Your task to perform on an android device: Search for the best rated mattress topper on Target. Image 0: 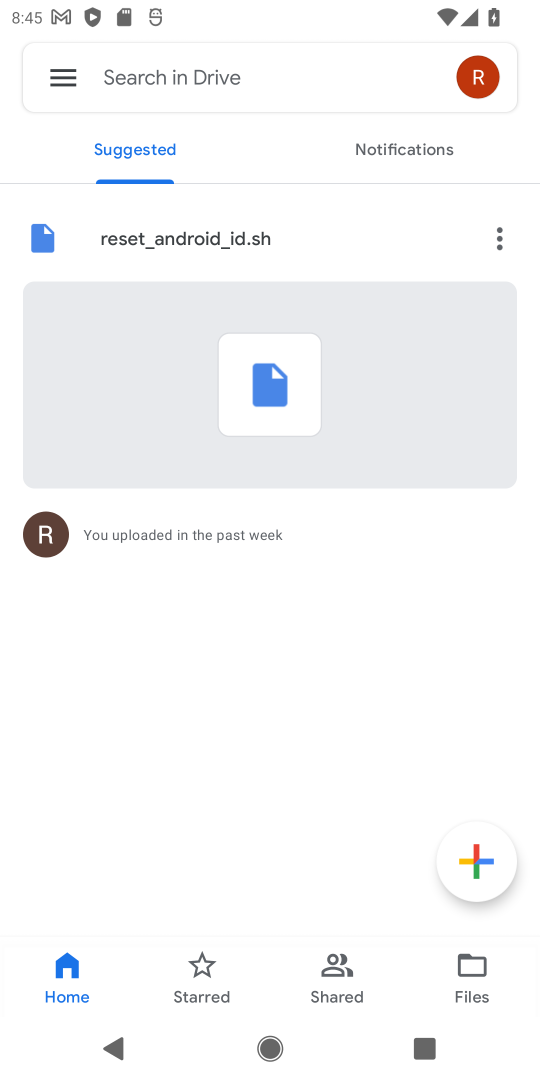
Step 0: press home button
Your task to perform on an android device: Search for the best rated mattress topper on Target. Image 1: 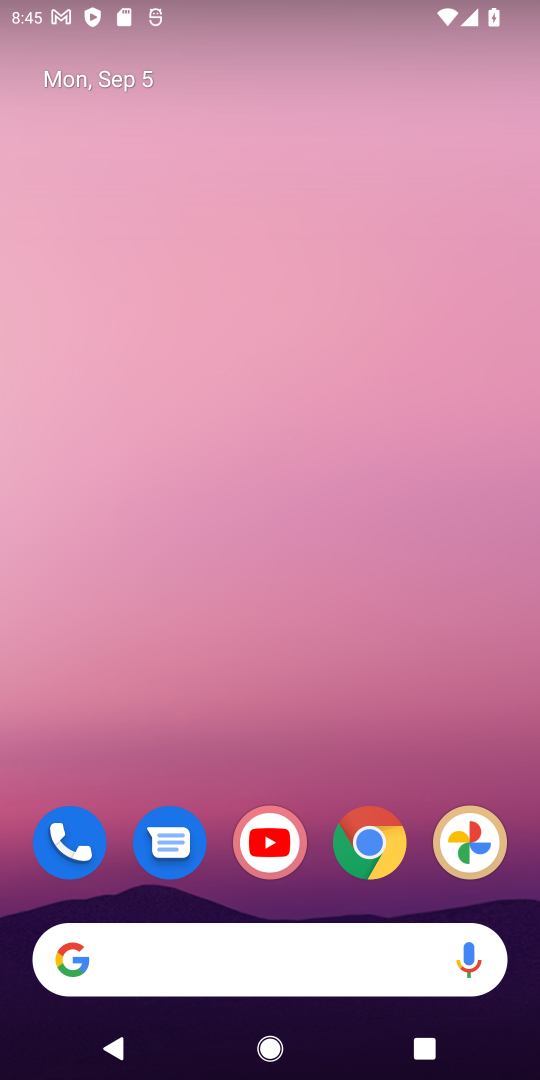
Step 1: drag from (216, 906) to (265, 232)
Your task to perform on an android device: Search for the best rated mattress topper on Target. Image 2: 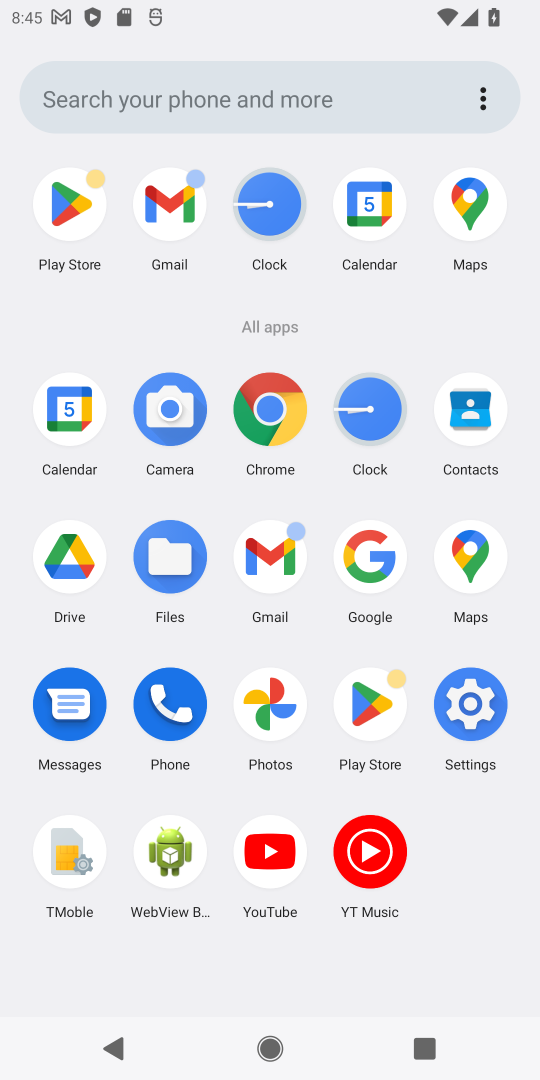
Step 2: click (284, 422)
Your task to perform on an android device: Search for the best rated mattress topper on Target. Image 3: 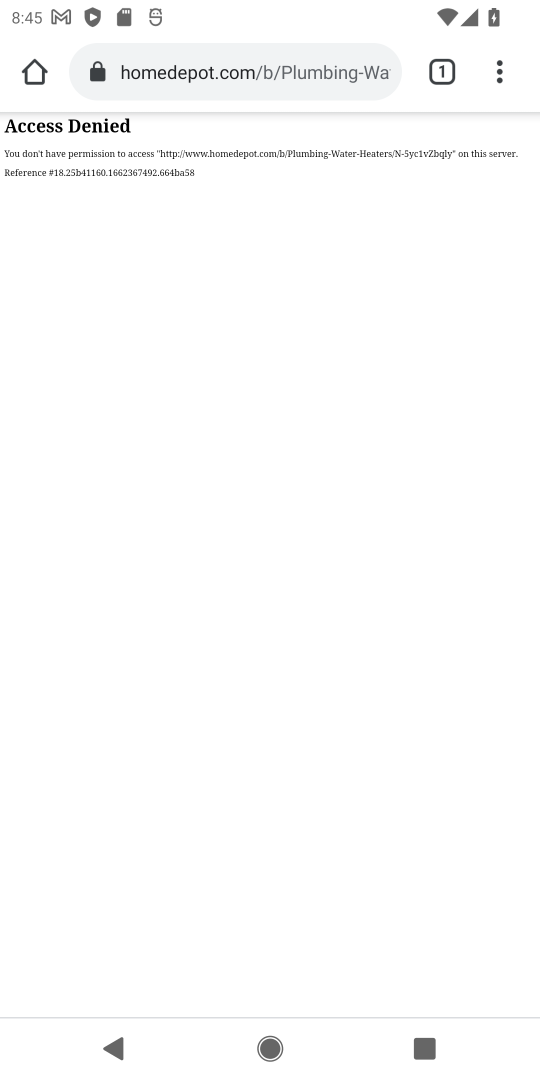
Step 3: click (296, 71)
Your task to perform on an android device: Search for the best rated mattress topper on Target. Image 4: 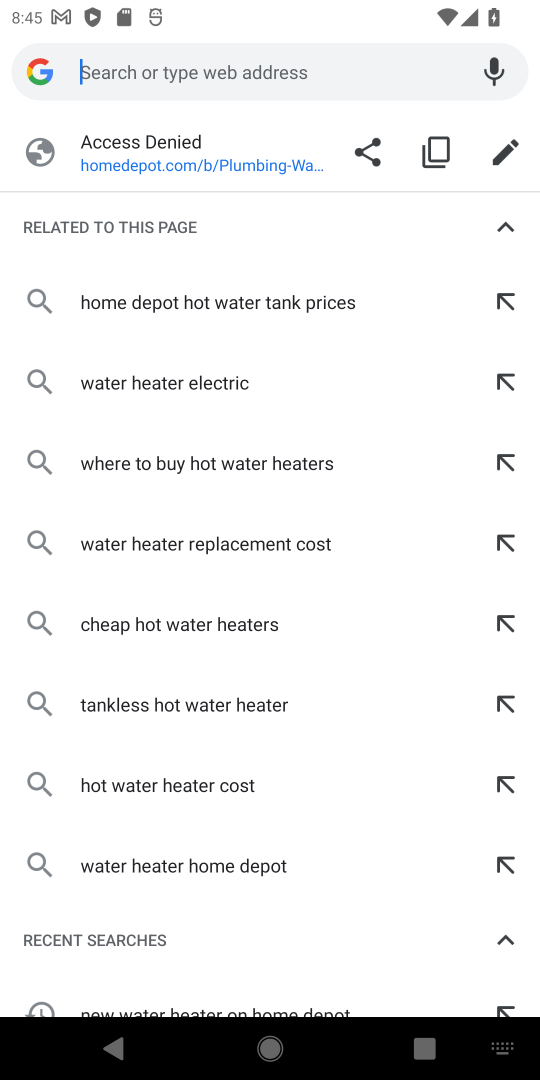
Step 4: type "best rated mattress topper"
Your task to perform on an android device: Search for the best rated mattress topper on Target. Image 5: 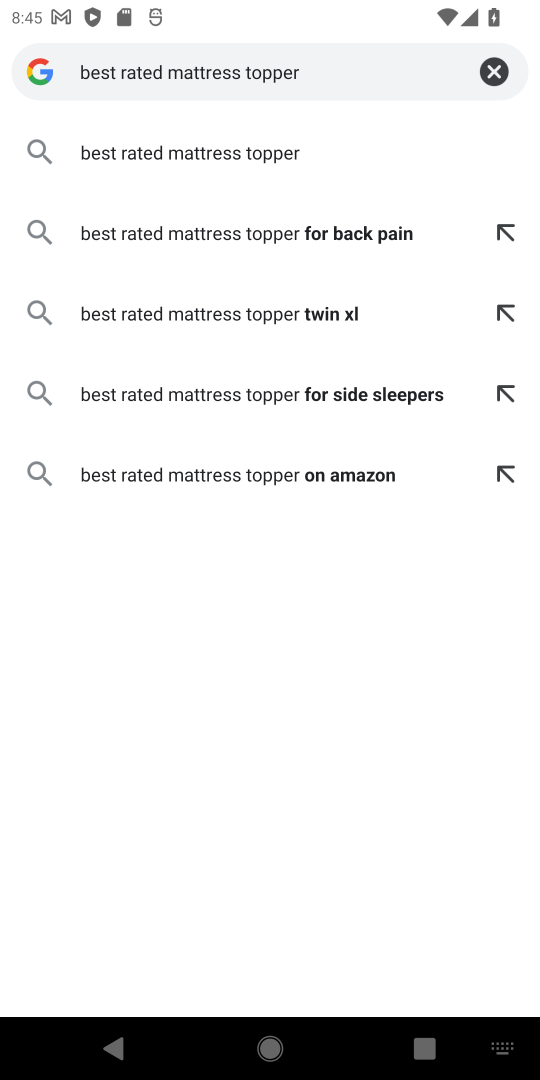
Step 5: type " on Target"
Your task to perform on an android device: Search for the best rated mattress topper on Target. Image 6: 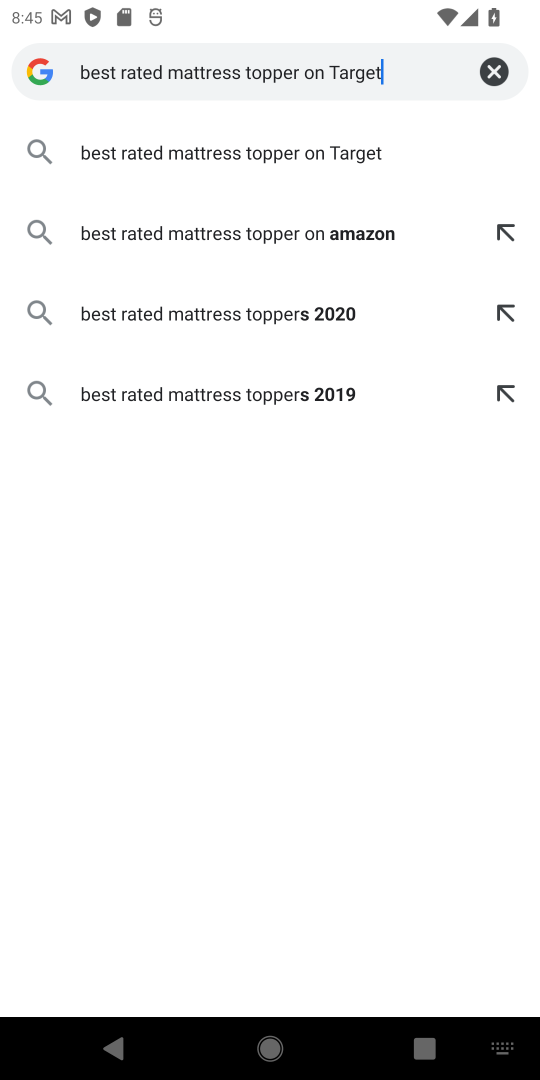
Step 6: press enter
Your task to perform on an android device: Search for the best rated mattress topper on Target. Image 7: 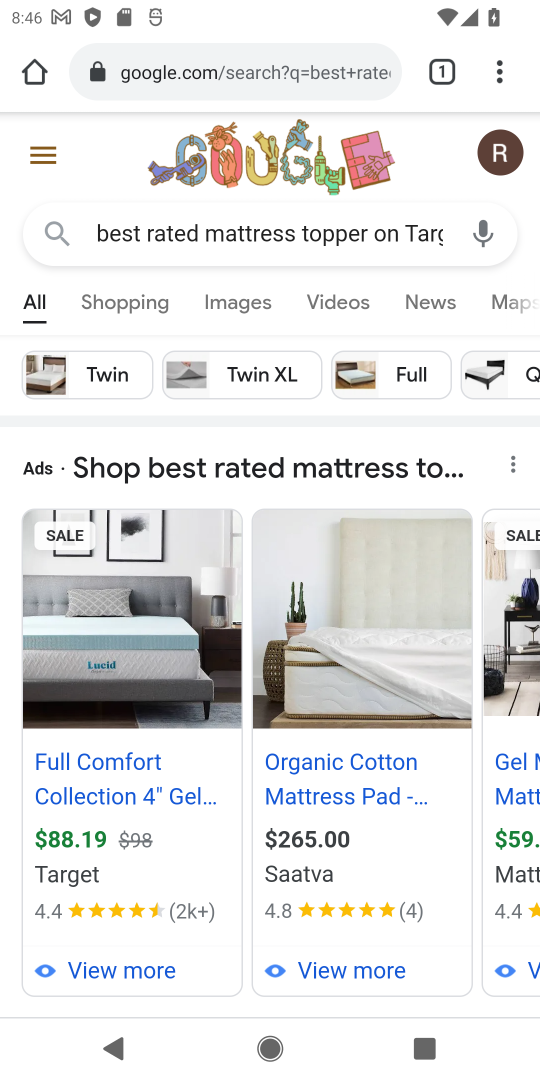
Step 7: drag from (284, 766) to (274, 111)
Your task to perform on an android device: Search for the best rated mattress topper on Target. Image 8: 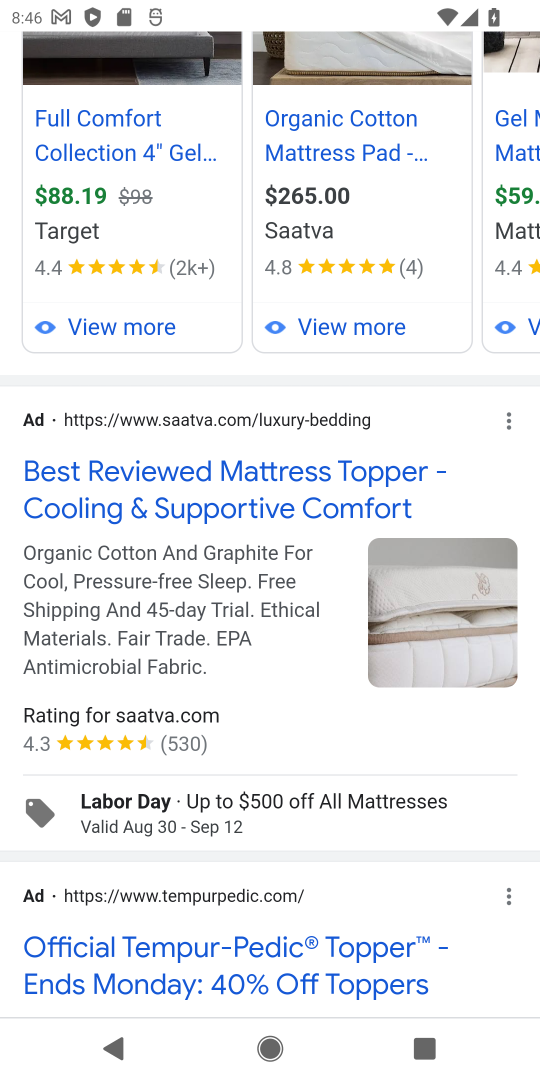
Step 8: drag from (389, 568) to (419, 243)
Your task to perform on an android device: Search for the best rated mattress topper on Target. Image 9: 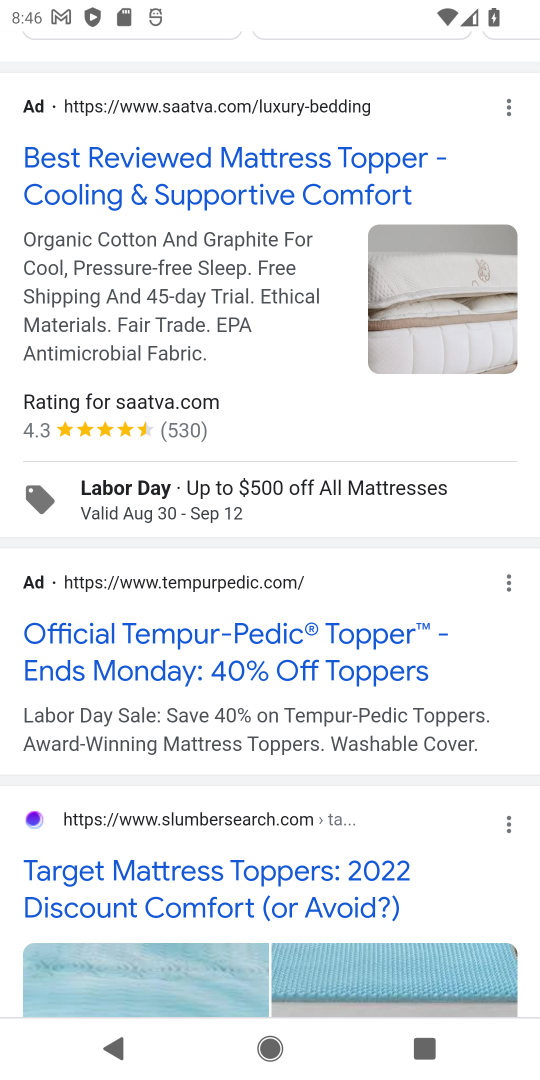
Step 9: drag from (278, 666) to (325, 300)
Your task to perform on an android device: Search for the best rated mattress topper on Target. Image 10: 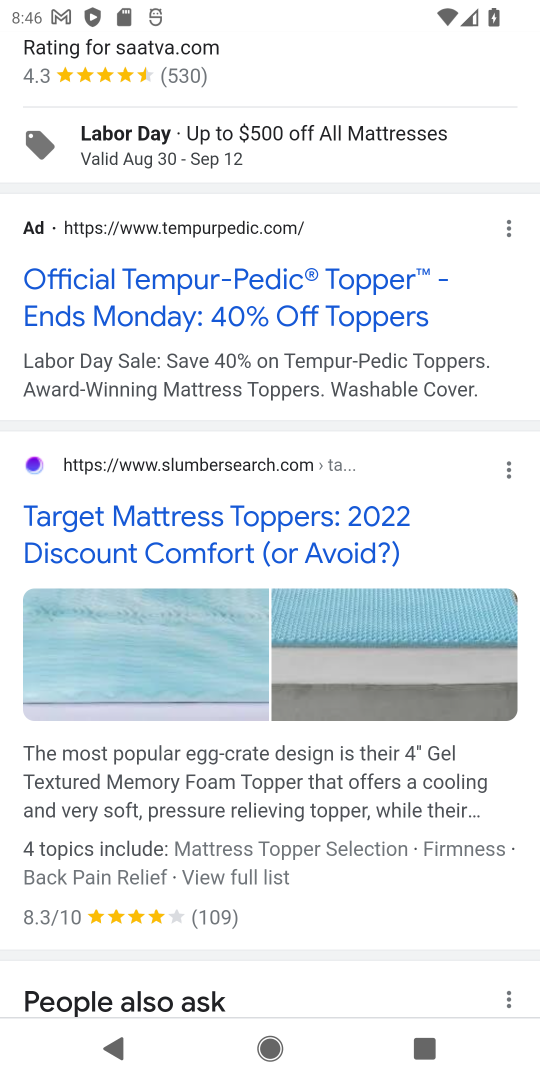
Step 10: click (262, 518)
Your task to perform on an android device: Search for the best rated mattress topper on Target. Image 11: 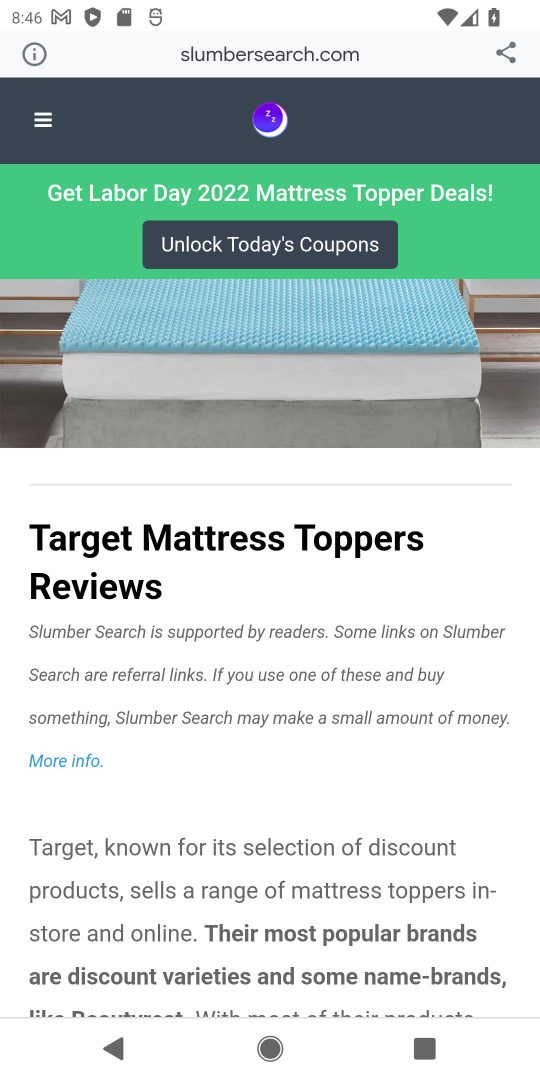
Step 11: task complete